Your task to perform on an android device: refresh tabs in the chrome app Image 0: 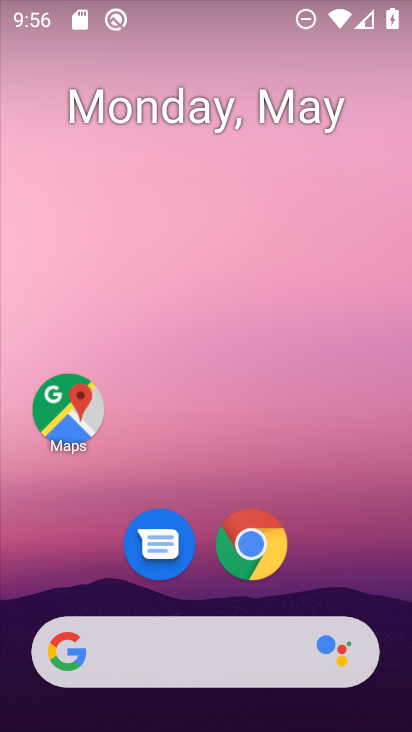
Step 0: click (244, 561)
Your task to perform on an android device: refresh tabs in the chrome app Image 1: 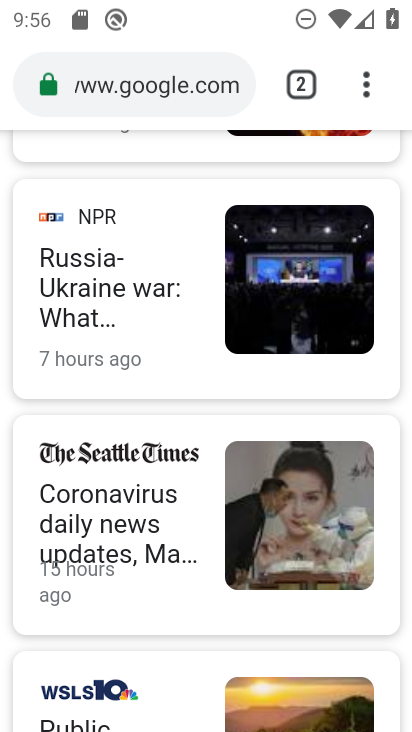
Step 1: click (365, 94)
Your task to perform on an android device: refresh tabs in the chrome app Image 2: 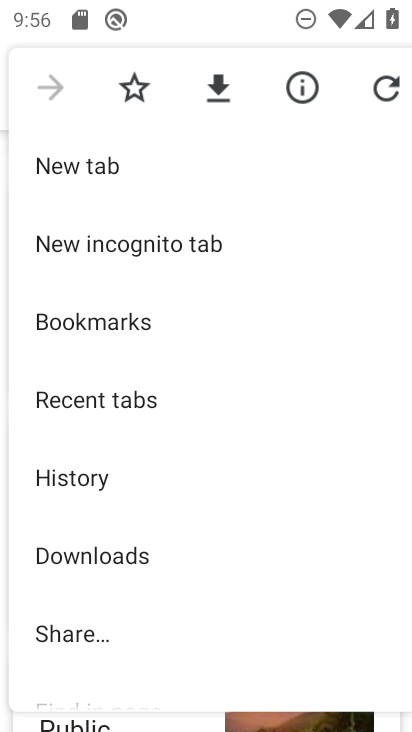
Step 2: click (378, 95)
Your task to perform on an android device: refresh tabs in the chrome app Image 3: 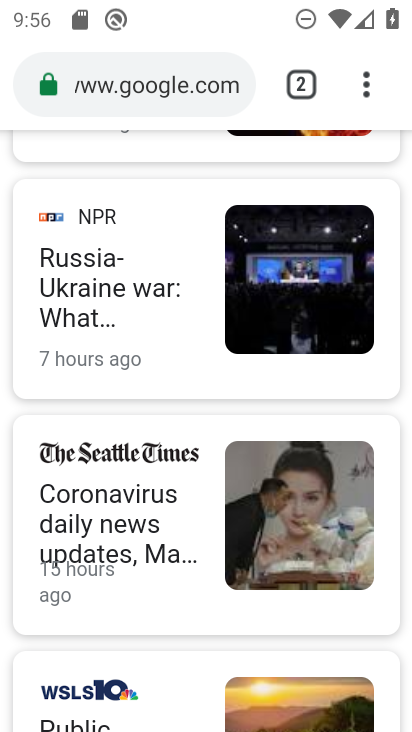
Step 3: task complete